Your task to perform on an android device: turn off sleep mode Image 0: 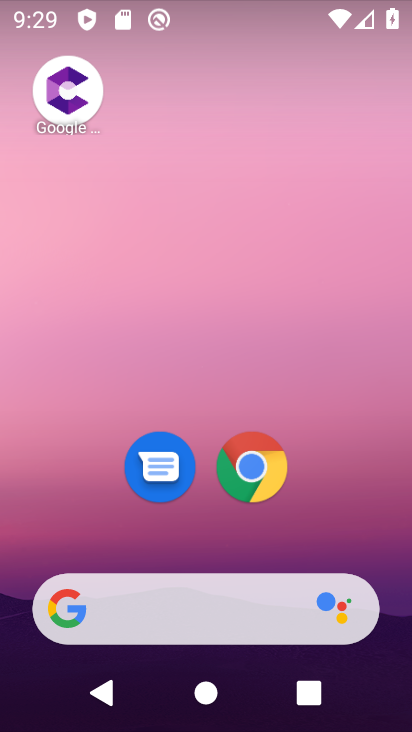
Step 0: drag from (400, 626) to (320, 25)
Your task to perform on an android device: turn off sleep mode Image 1: 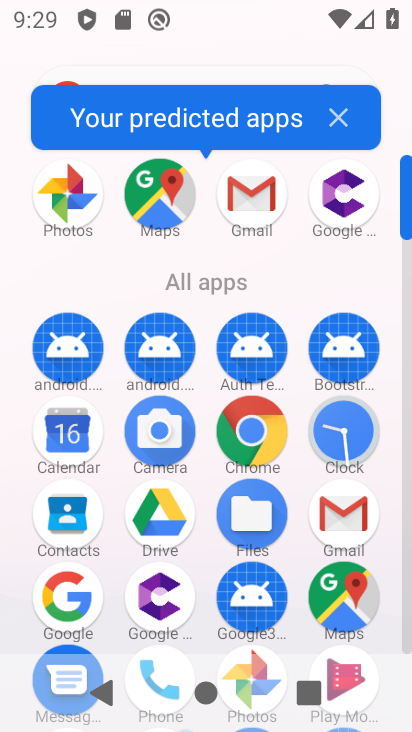
Step 1: click (407, 637)
Your task to perform on an android device: turn off sleep mode Image 2: 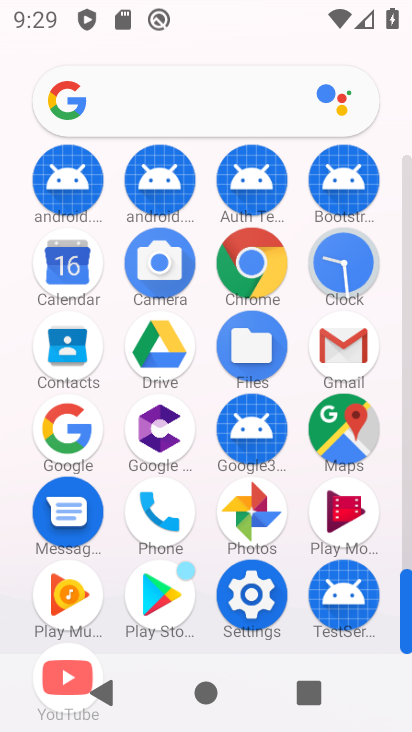
Step 2: click (254, 595)
Your task to perform on an android device: turn off sleep mode Image 3: 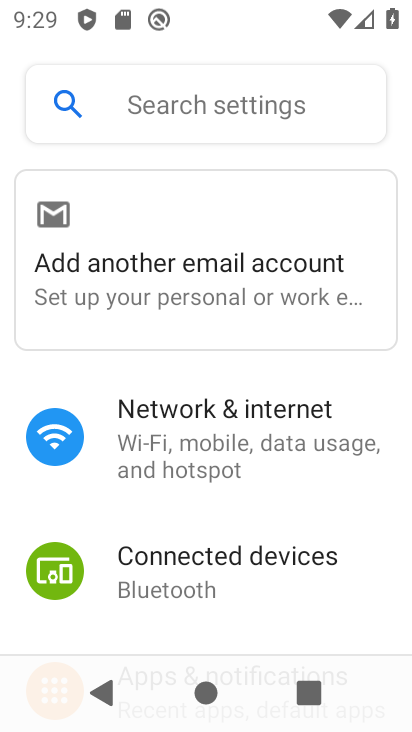
Step 3: drag from (377, 607) to (318, 174)
Your task to perform on an android device: turn off sleep mode Image 4: 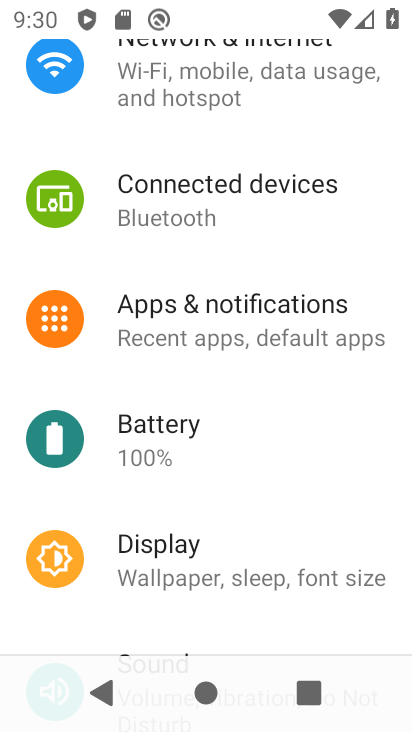
Step 4: drag from (367, 611) to (331, 309)
Your task to perform on an android device: turn off sleep mode Image 5: 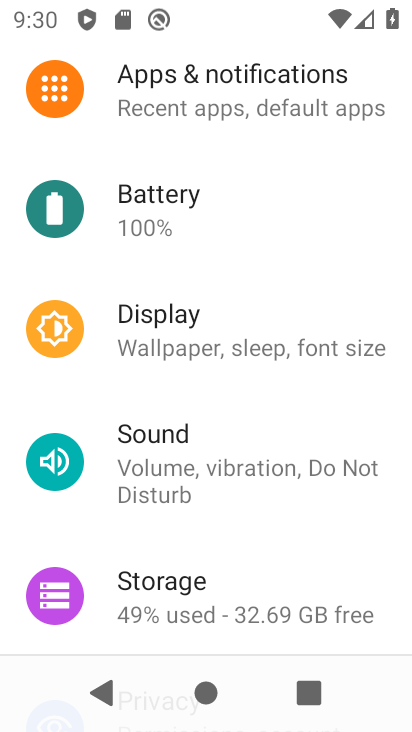
Step 5: click (184, 339)
Your task to perform on an android device: turn off sleep mode Image 6: 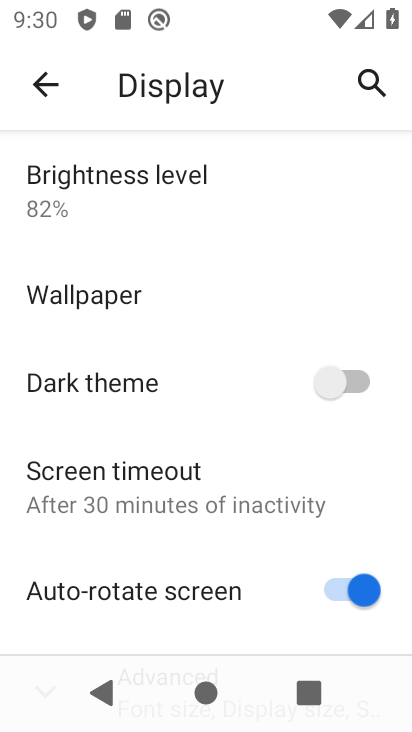
Step 6: drag from (252, 521) to (239, 230)
Your task to perform on an android device: turn off sleep mode Image 7: 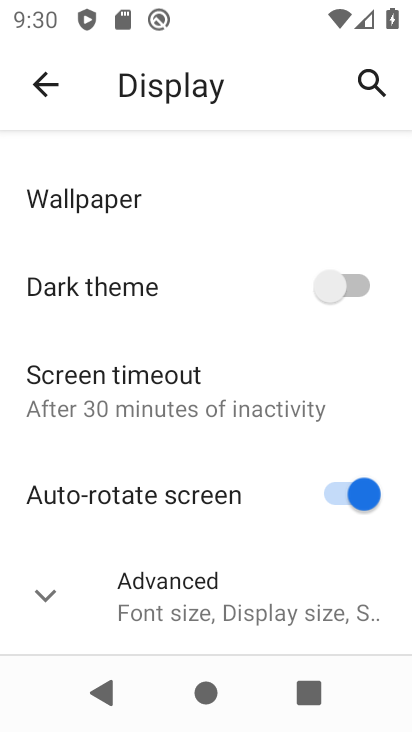
Step 7: click (34, 603)
Your task to perform on an android device: turn off sleep mode Image 8: 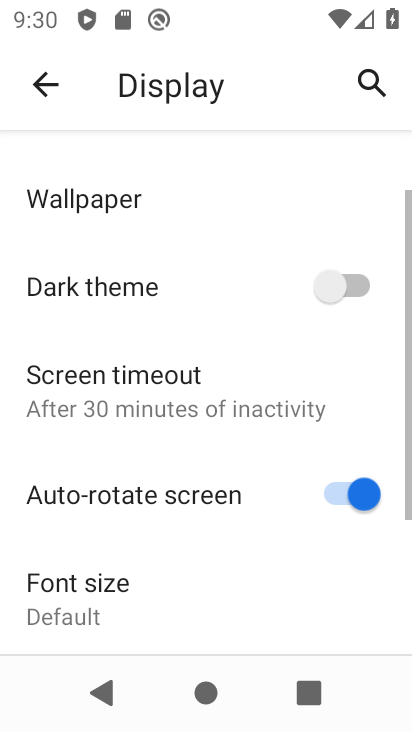
Step 8: task complete